Your task to perform on an android device: Go to Yahoo.com Image 0: 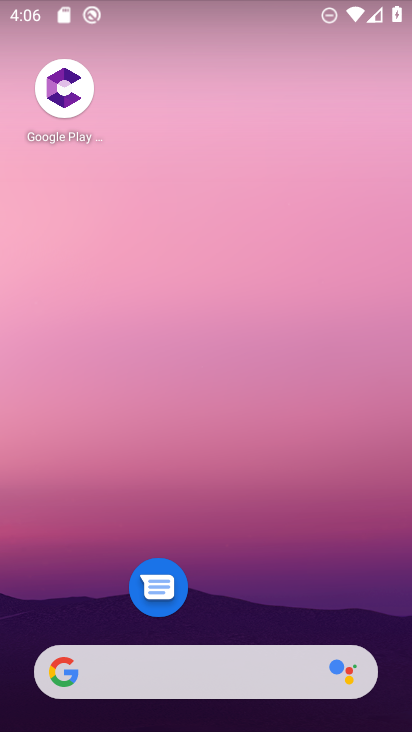
Step 0: drag from (244, 589) to (247, 124)
Your task to perform on an android device: Go to Yahoo.com Image 1: 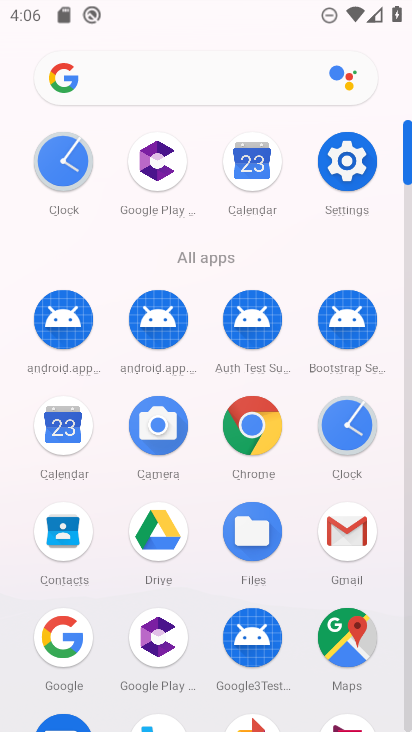
Step 1: click (260, 425)
Your task to perform on an android device: Go to Yahoo.com Image 2: 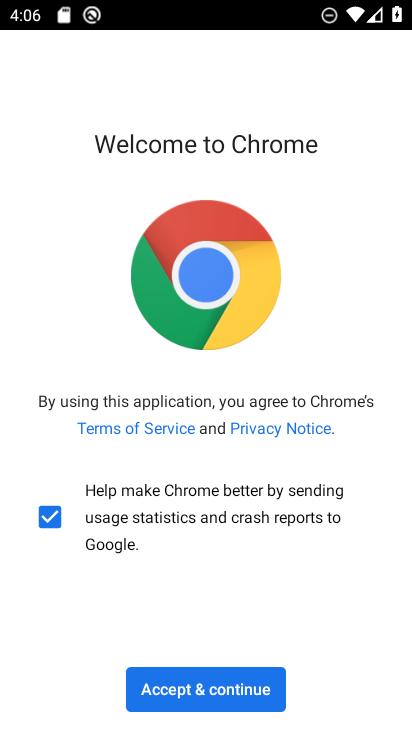
Step 2: click (233, 672)
Your task to perform on an android device: Go to Yahoo.com Image 3: 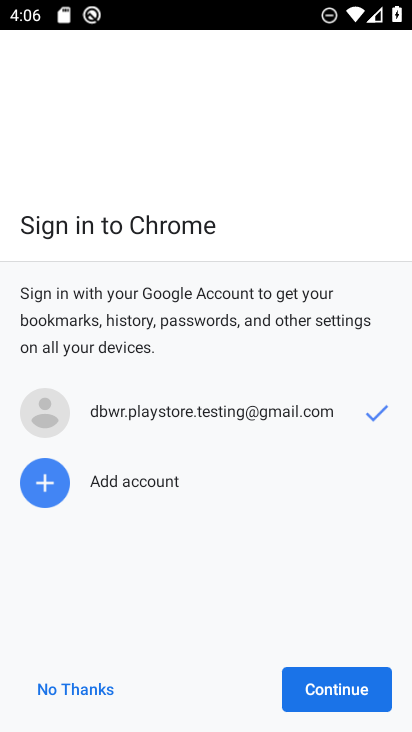
Step 3: click (296, 680)
Your task to perform on an android device: Go to Yahoo.com Image 4: 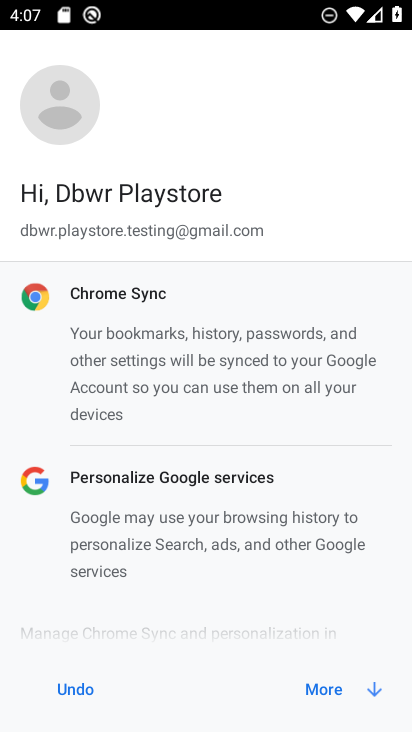
Step 4: click (310, 673)
Your task to perform on an android device: Go to Yahoo.com Image 5: 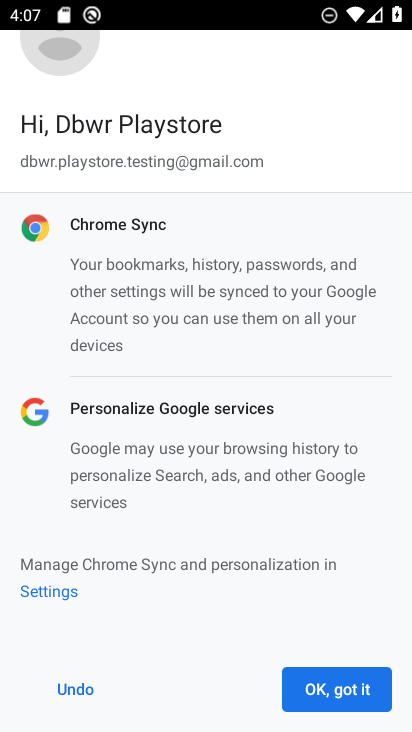
Step 5: click (310, 673)
Your task to perform on an android device: Go to Yahoo.com Image 6: 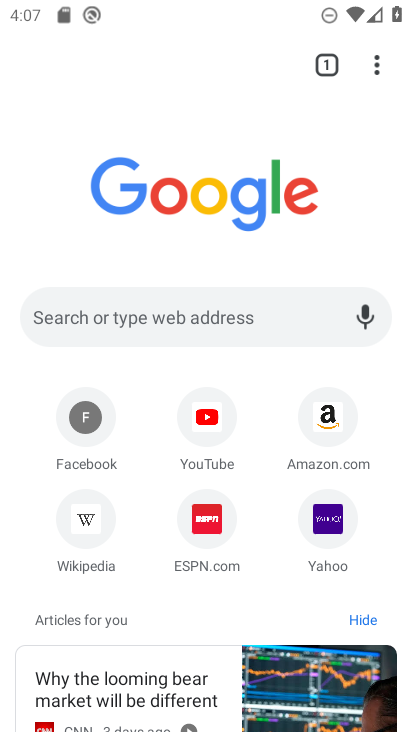
Step 6: click (332, 536)
Your task to perform on an android device: Go to Yahoo.com Image 7: 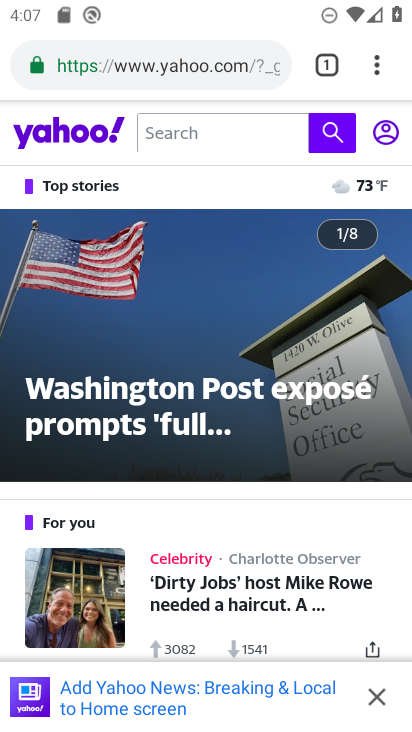
Step 7: task complete